Your task to perform on an android device: Open Google Maps and go to "Timeline" Image 0: 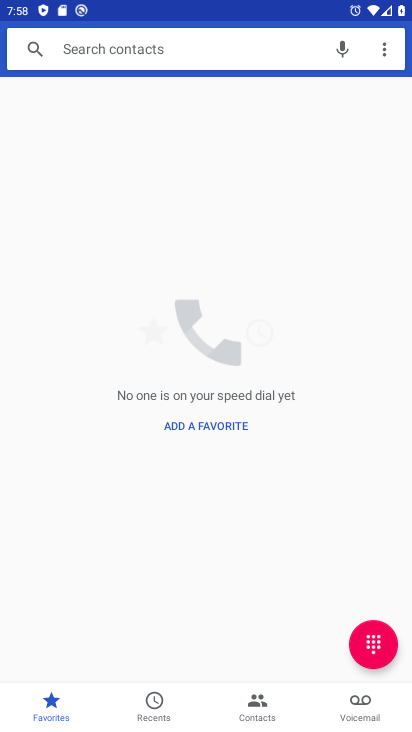
Step 0: press home button
Your task to perform on an android device: Open Google Maps and go to "Timeline" Image 1: 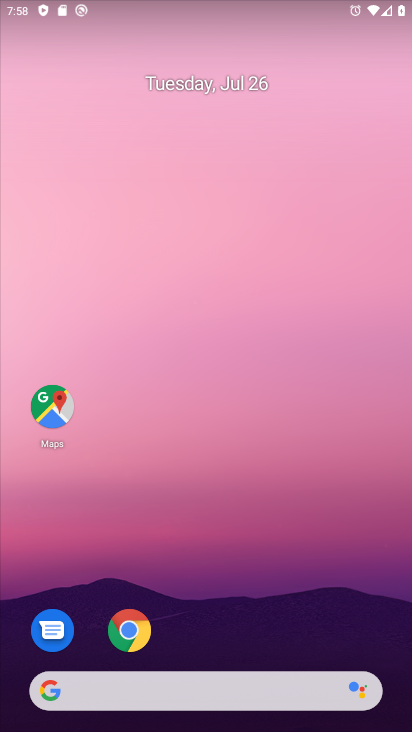
Step 1: click (50, 408)
Your task to perform on an android device: Open Google Maps and go to "Timeline" Image 2: 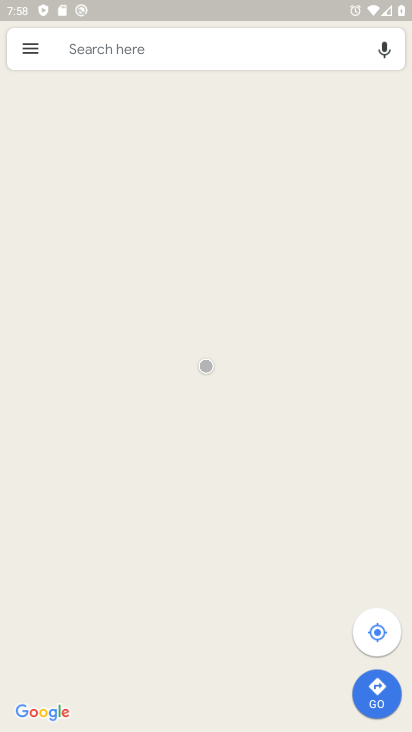
Step 2: click (30, 50)
Your task to perform on an android device: Open Google Maps and go to "Timeline" Image 3: 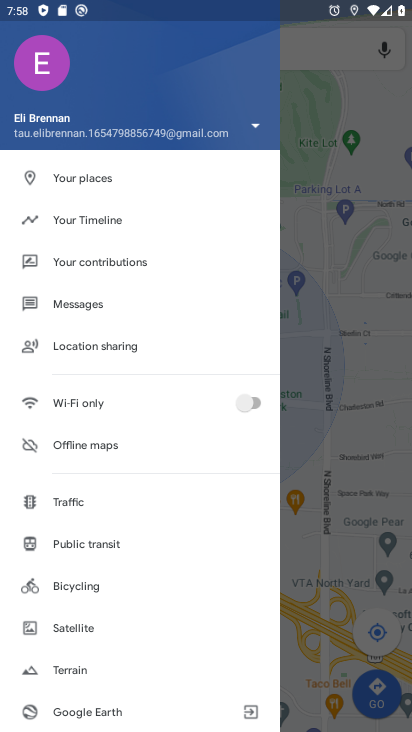
Step 3: click (103, 218)
Your task to perform on an android device: Open Google Maps and go to "Timeline" Image 4: 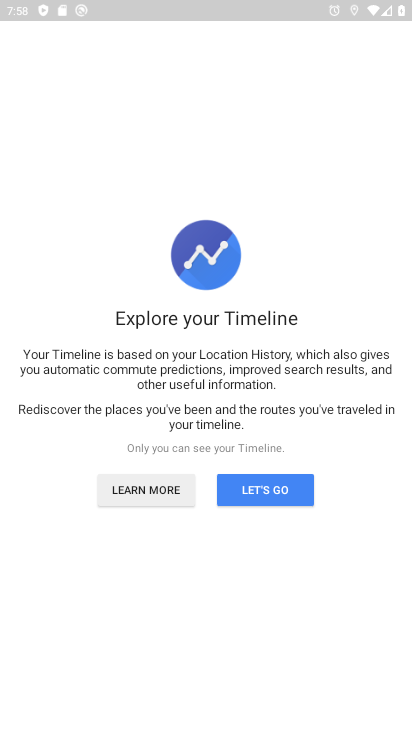
Step 4: click (253, 486)
Your task to perform on an android device: Open Google Maps and go to "Timeline" Image 5: 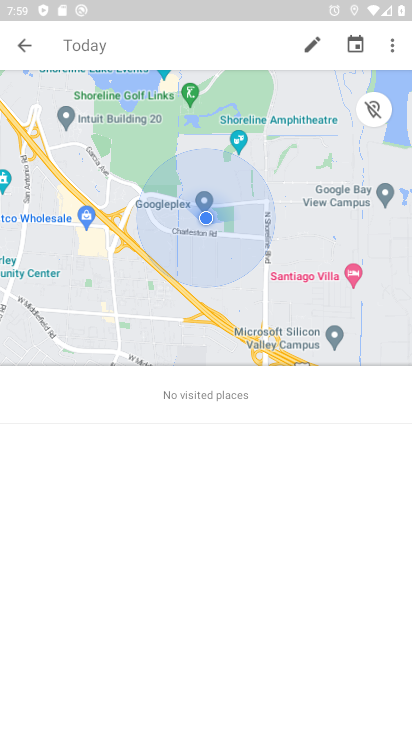
Step 5: task complete